Your task to perform on an android device: turn smart compose on in the gmail app Image 0: 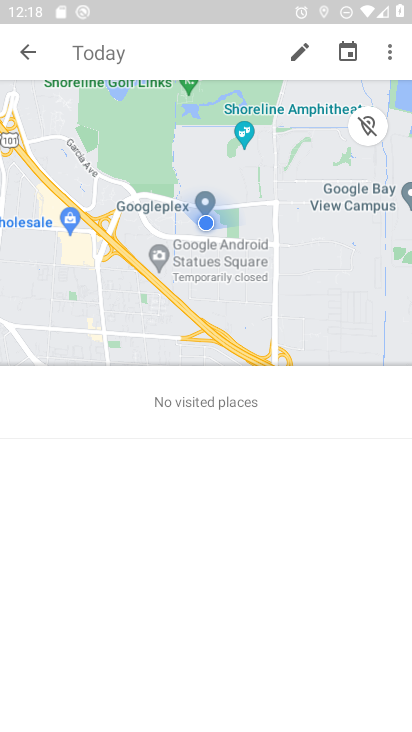
Step 0: press home button
Your task to perform on an android device: turn smart compose on in the gmail app Image 1: 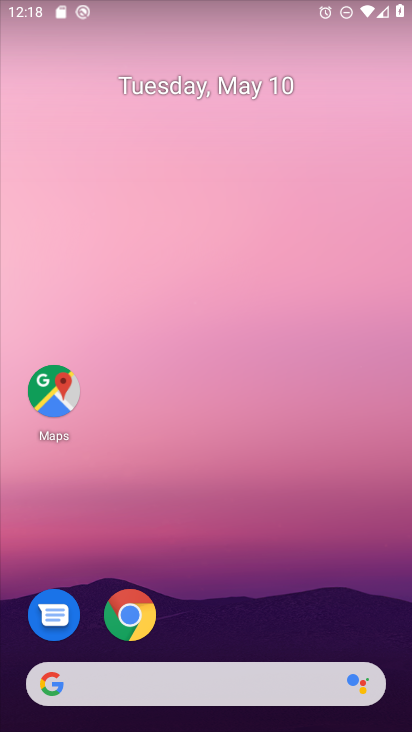
Step 1: drag from (190, 720) to (247, 349)
Your task to perform on an android device: turn smart compose on in the gmail app Image 2: 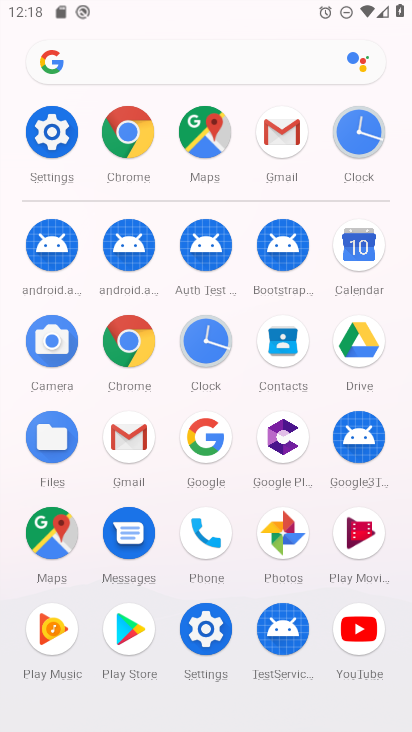
Step 2: click (65, 536)
Your task to perform on an android device: turn smart compose on in the gmail app Image 3: 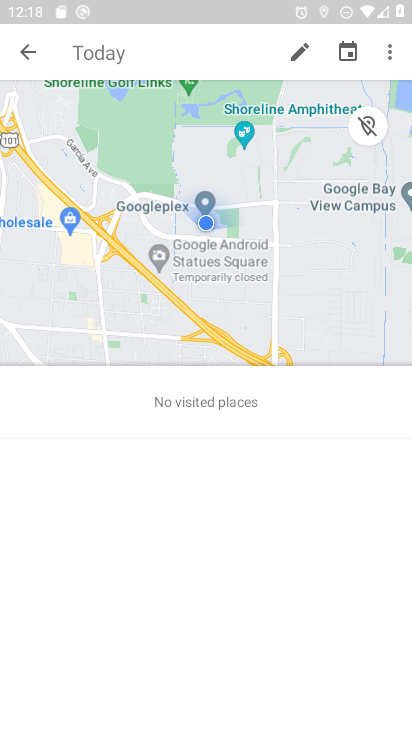
Step 3: press home button
Your task to perform on an android device: turn smart compose on in the gmail app Image 4: 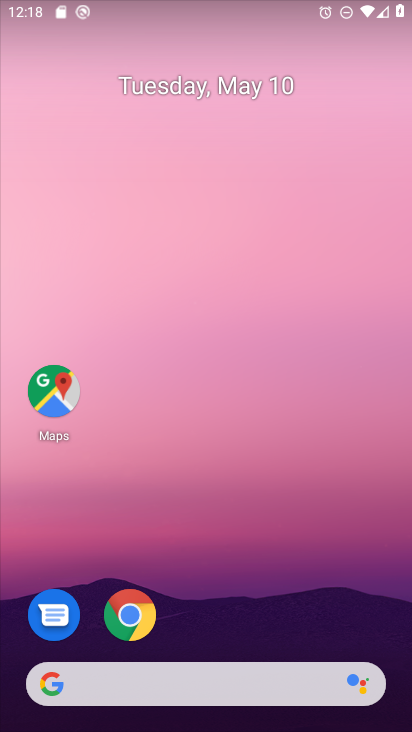
Step 4: drag from (268, 695) to (309, 331)
Your task to perform on an android device: turn smart compose on in the gmail app Image 5: 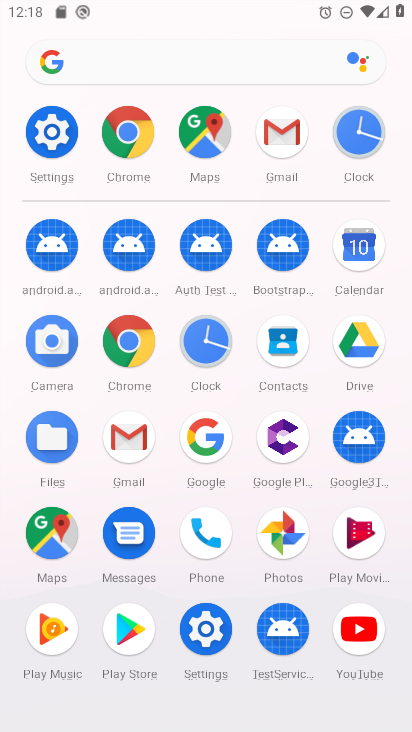
Step 5: click (131, 426)
Your task to perform on an android device: turn smart compose on in the gmail app Image 6: 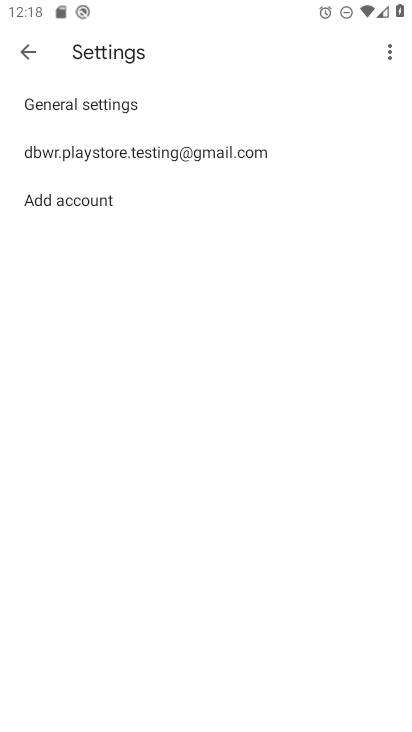
Step 6: click (184, 164)
Your task to perform on an android device: turn smart compose on in the gmail app Image 7: 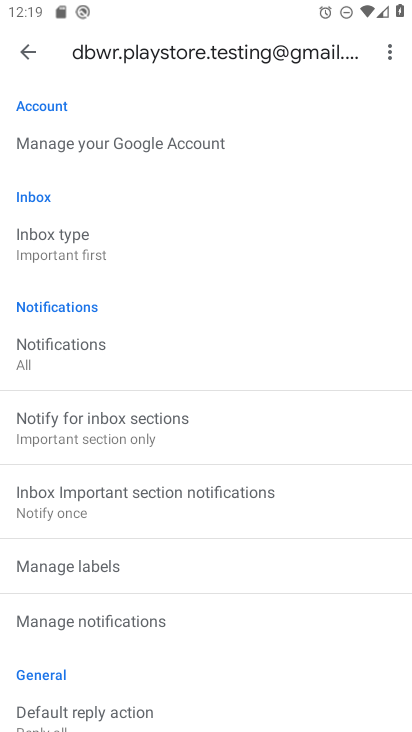
Step 7: drag from (204, 558) to (265, 240)
Your task to perform on an android device: turn smart compose on in the gmail app Image 8: 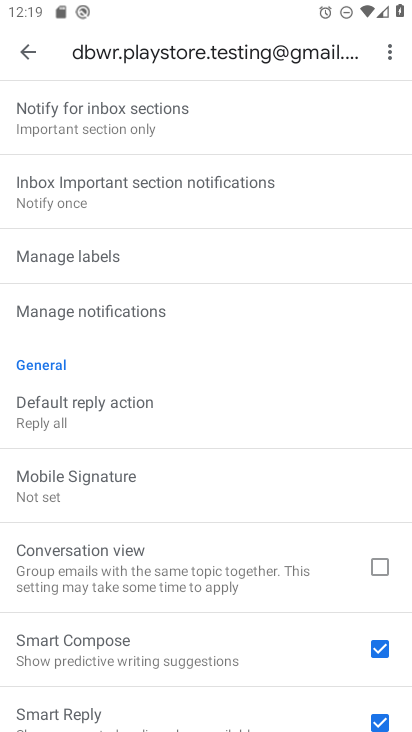
Step 8: drag from (243, 469) to (259, 339)
Your task to perform on an android device: turn smart compose on in the gmail app Image 9: 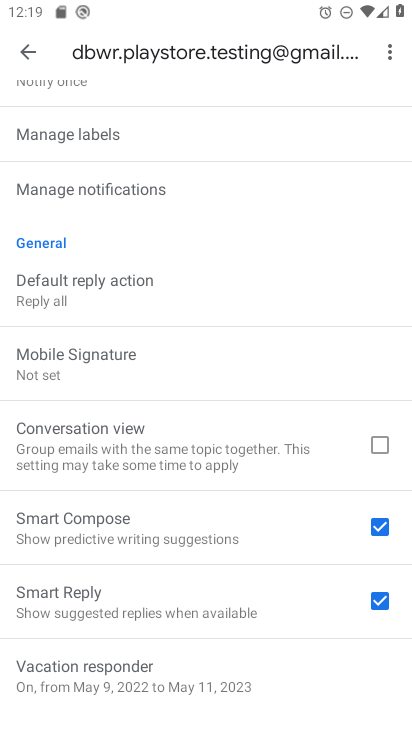
Step 9: click (385, 526)
Your task to perform on an android device: turn smart compose on in the gmail app Image 10: 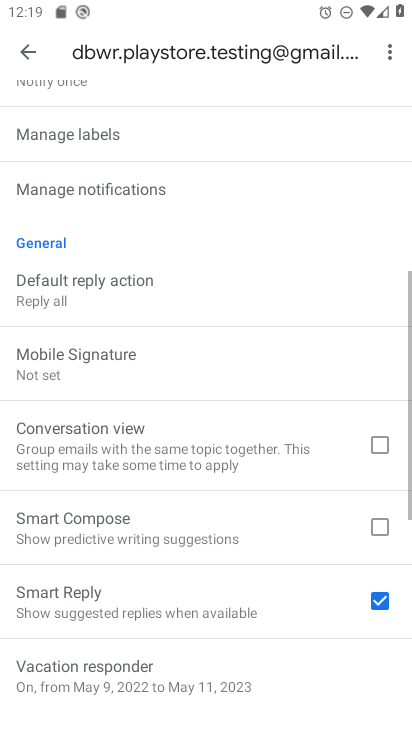
Step 10: click (383, 524)
Your task to perform on an android device: turn smart compose on in the gmail app Image 11: 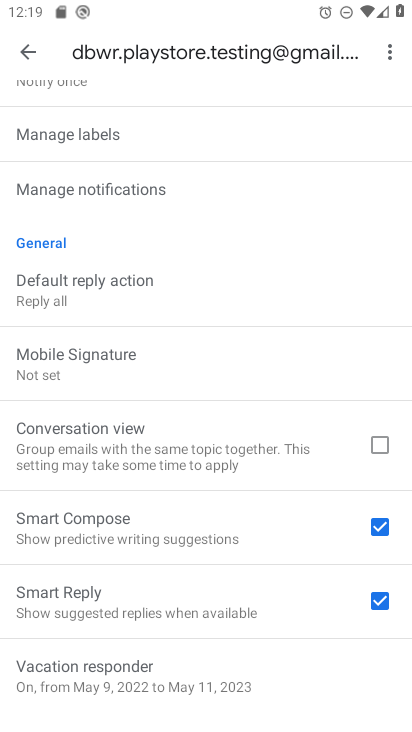
Step 11: task complete